Your task to perform on an android device: toggle wifi Image 0: 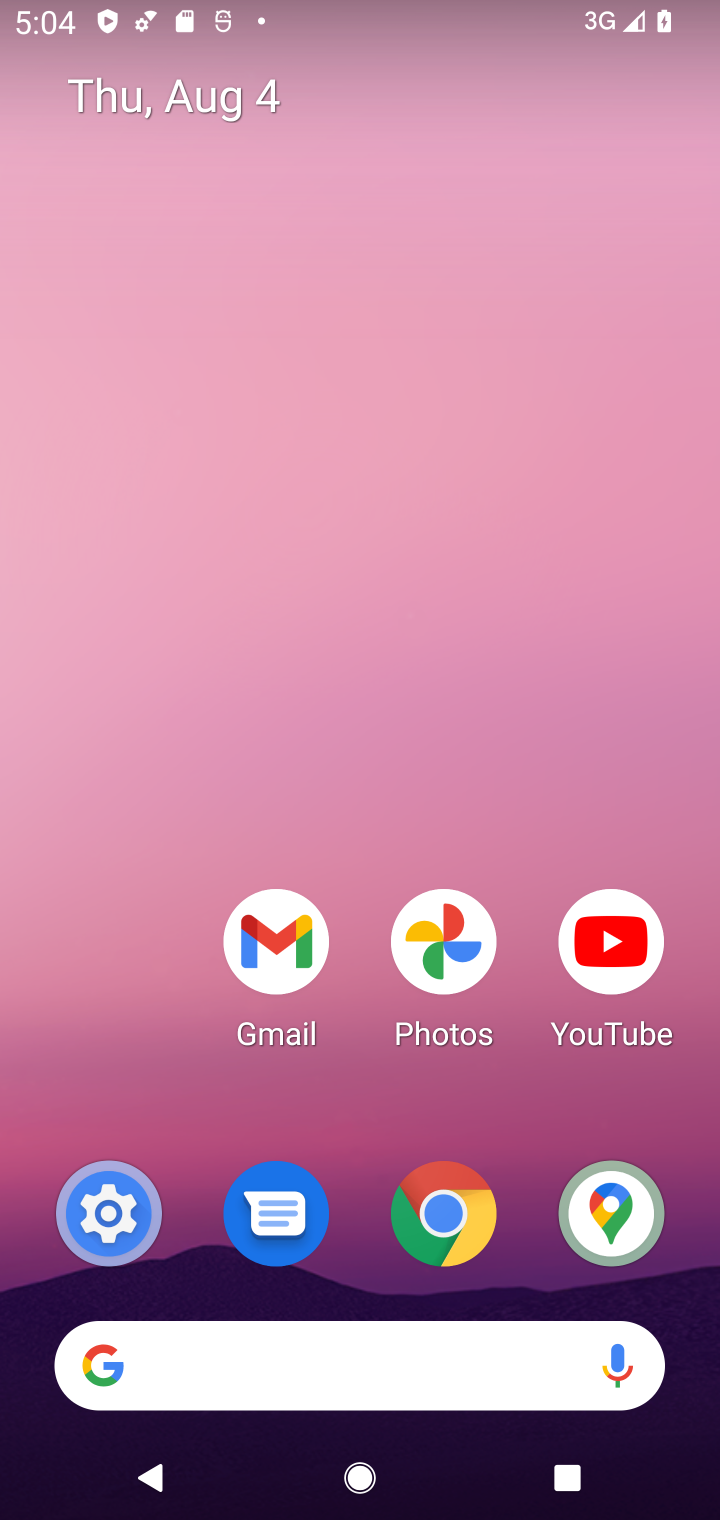
Step 0: press home button
Your task to perform on an android device: toggle wifi Image 1: 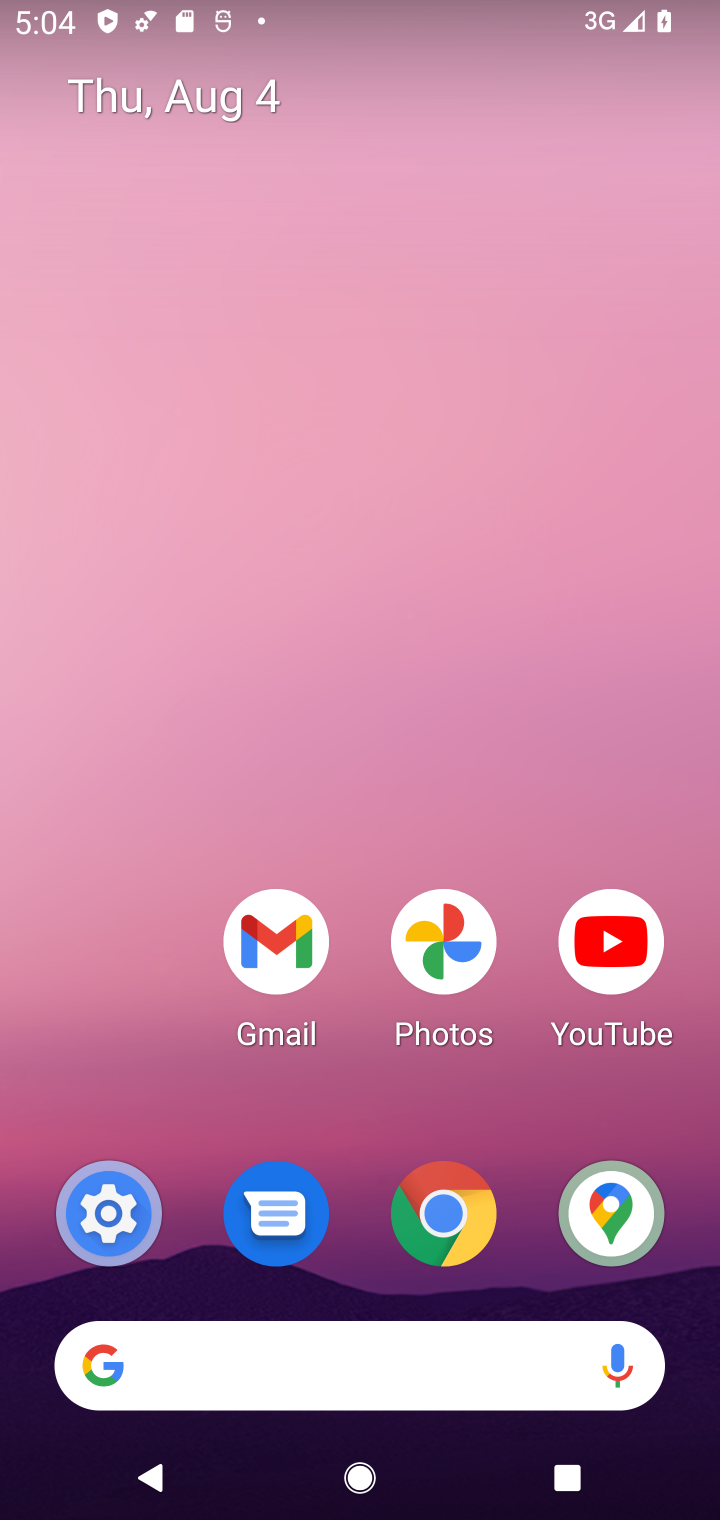
Step 1: drag from (160, 1063) to (147, 400)
Your task to perform on an android device: toggle wifi Image 2: 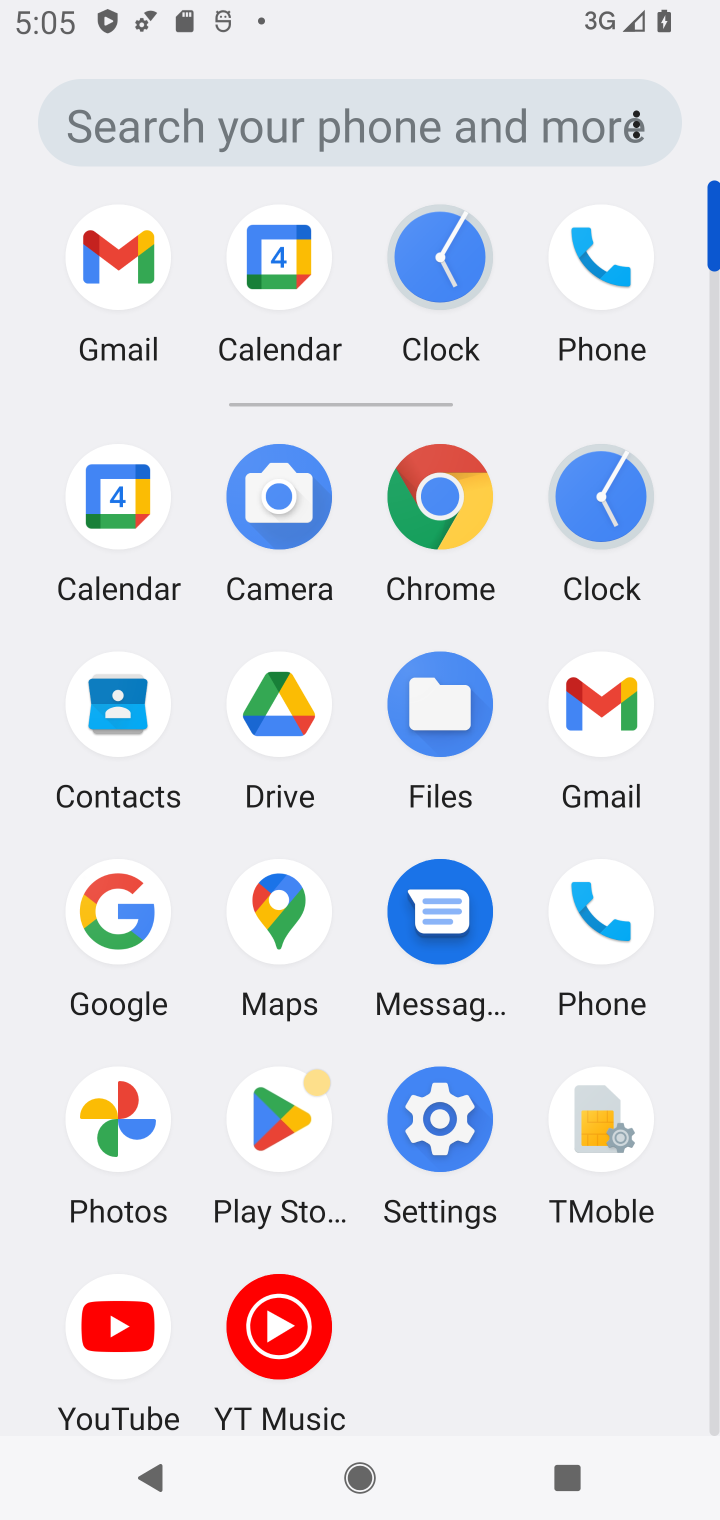
Step 2: click (476, 1128)
Your task to perform on an android device: toggle wifi Image 3: 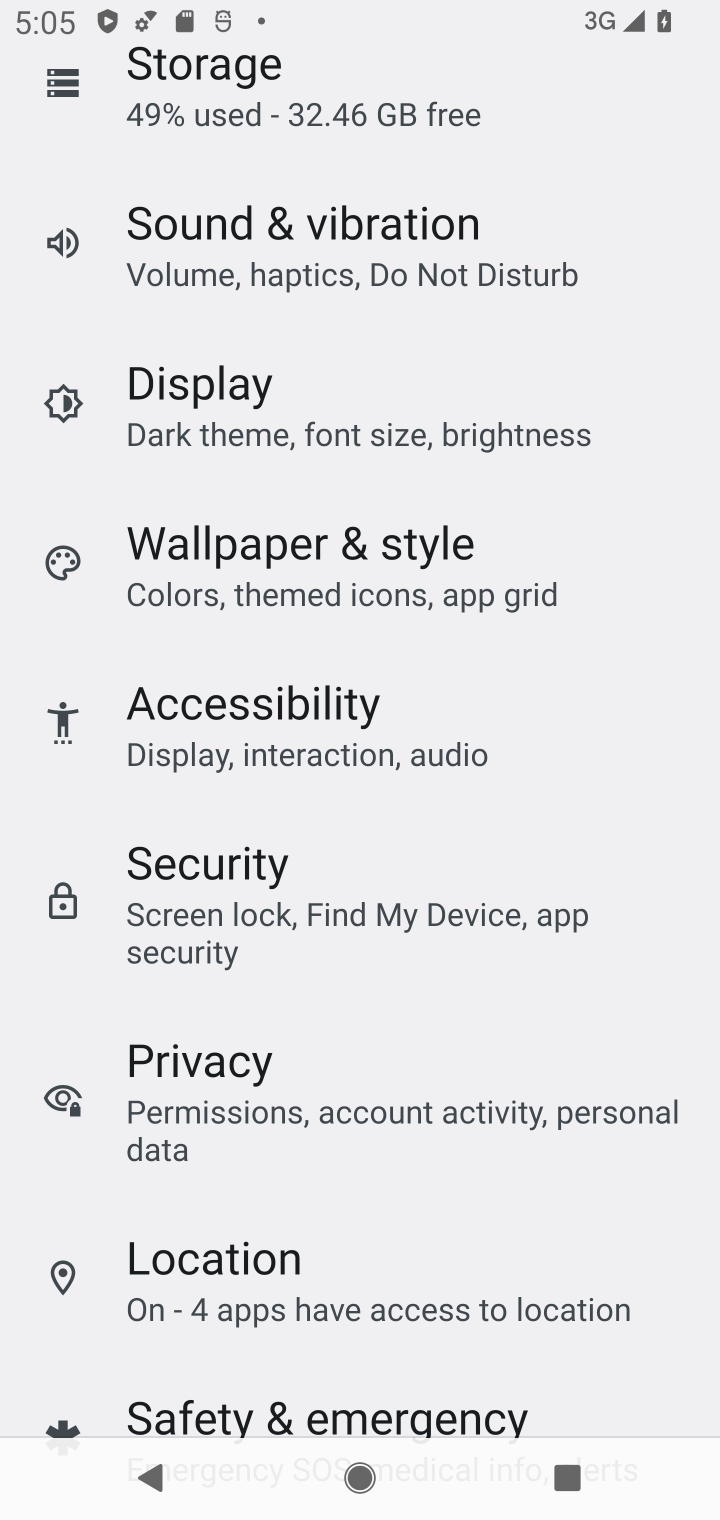
Step 3: drag from (632, 625) to (640, 886)
Your task to perform on an android device: toggle wifi Image 4: 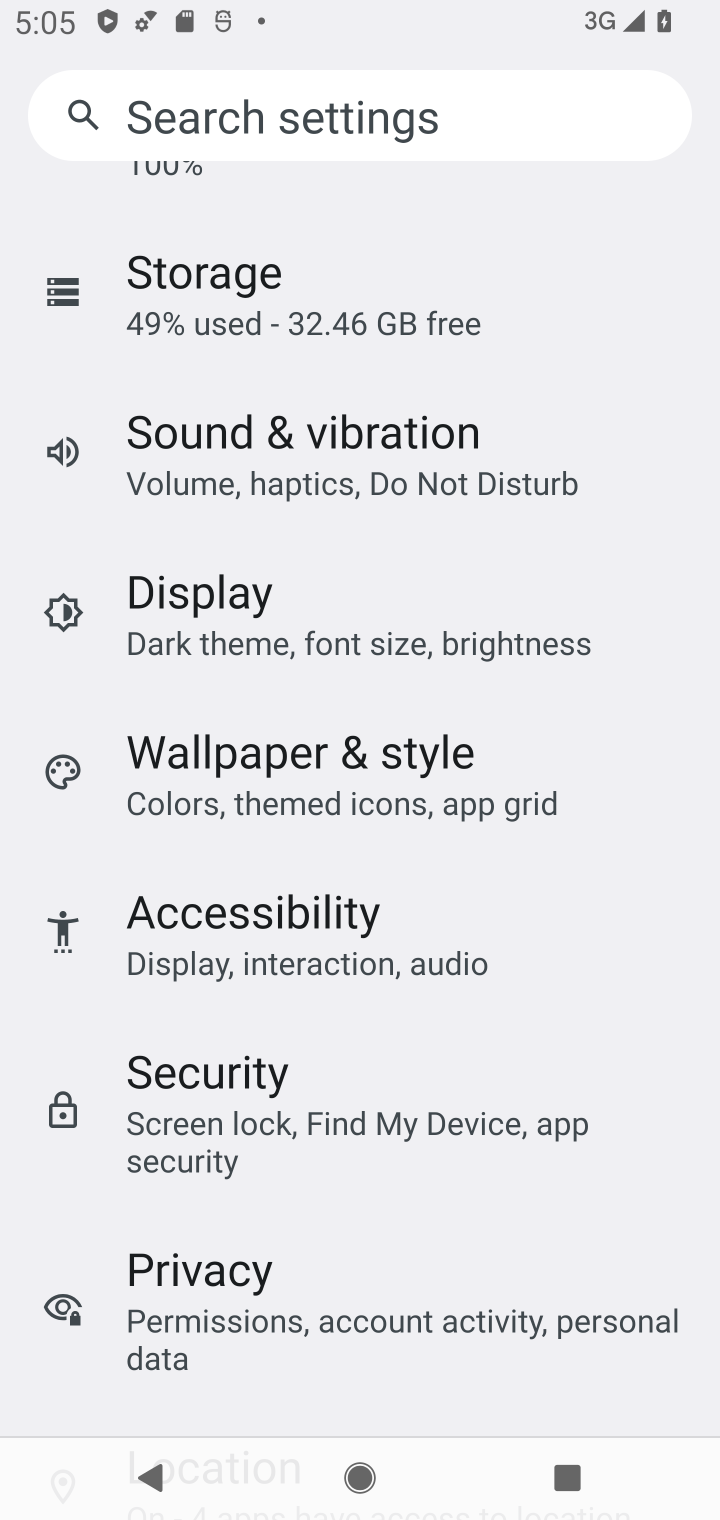
Step 4: drag from (642, 526) to (670, 886)
Your task to perform on an android device: toggle wifi Image 5: 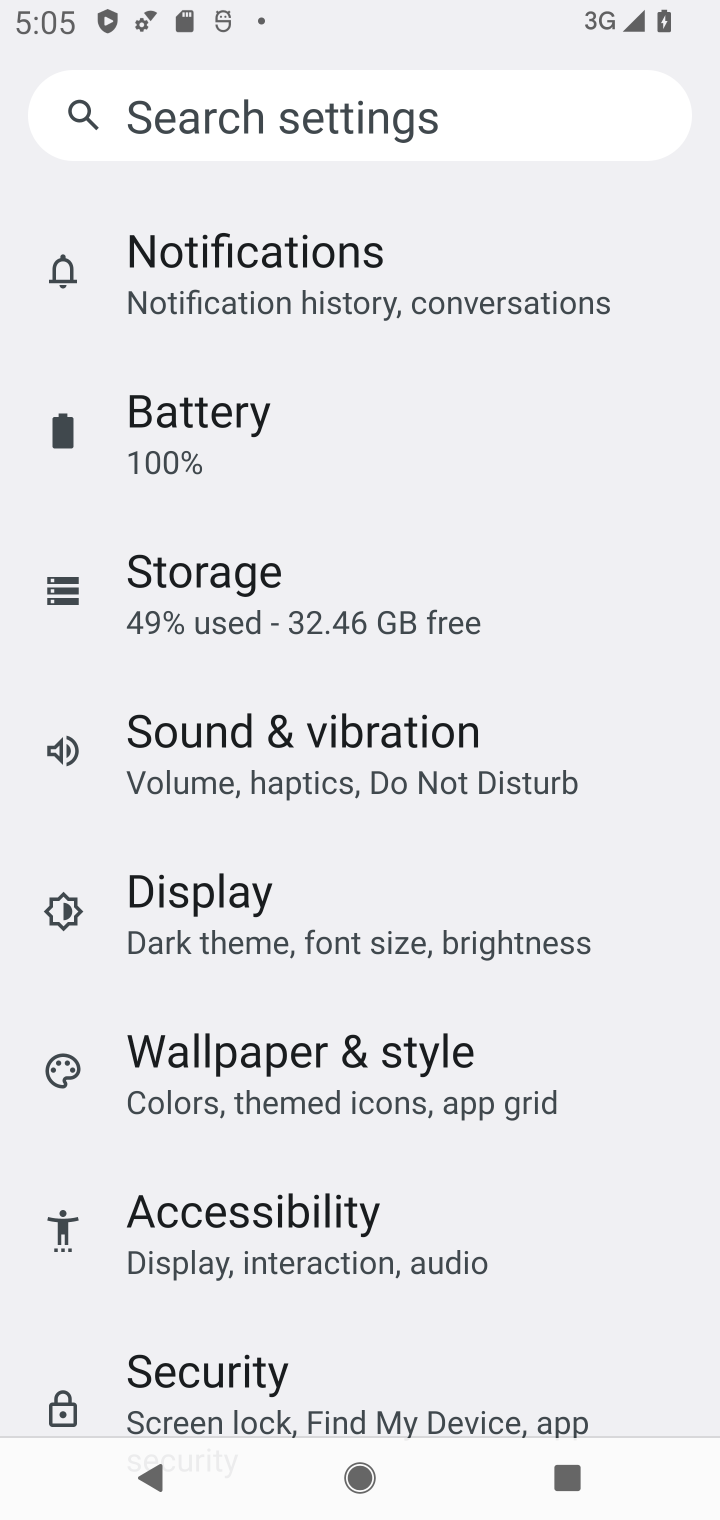
Step 5: drag from (572, 396) to (632, 889)
Your task to perform on an android device: toggle wifi Image 6: 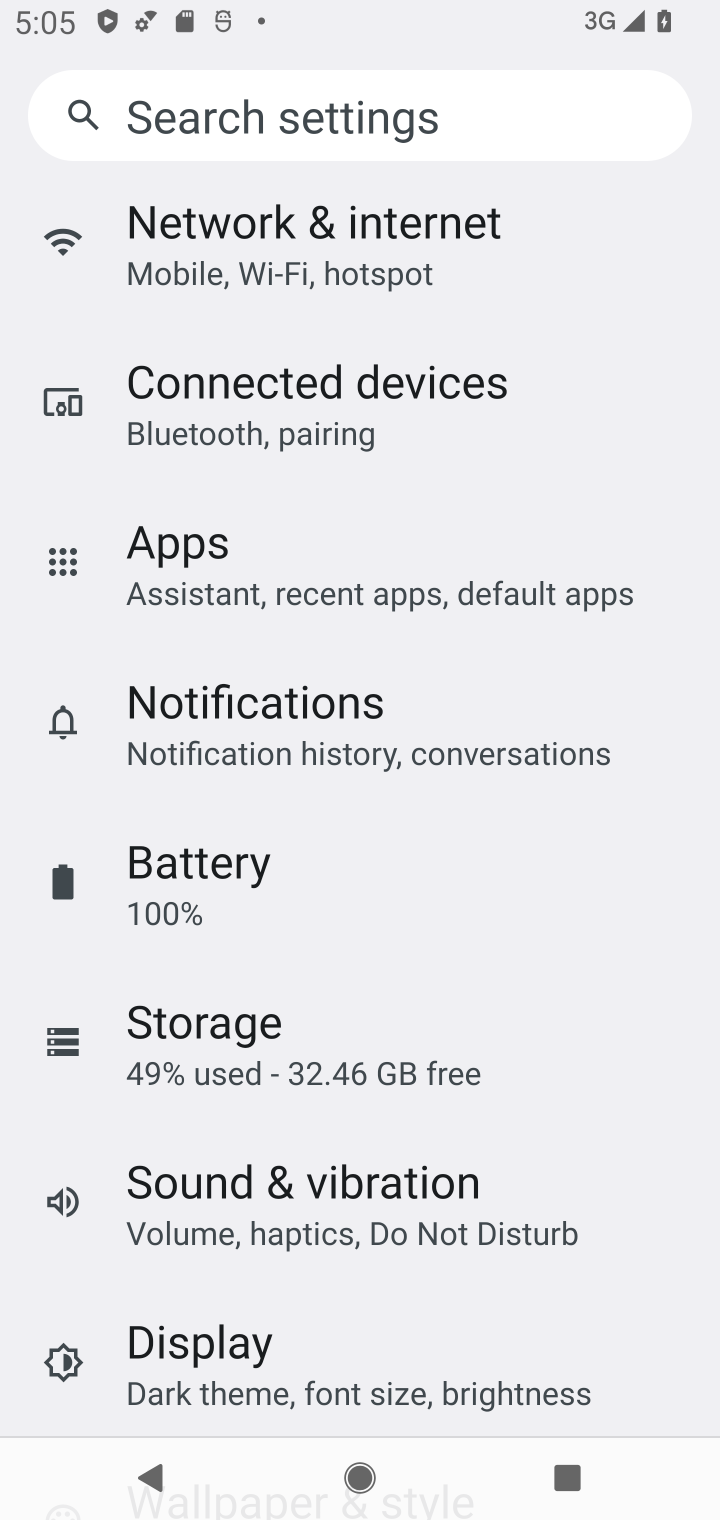
Step 6: drag from (622, 499) to (629, 950)
Your task to perform on an android device: toggle wifi Image 7: 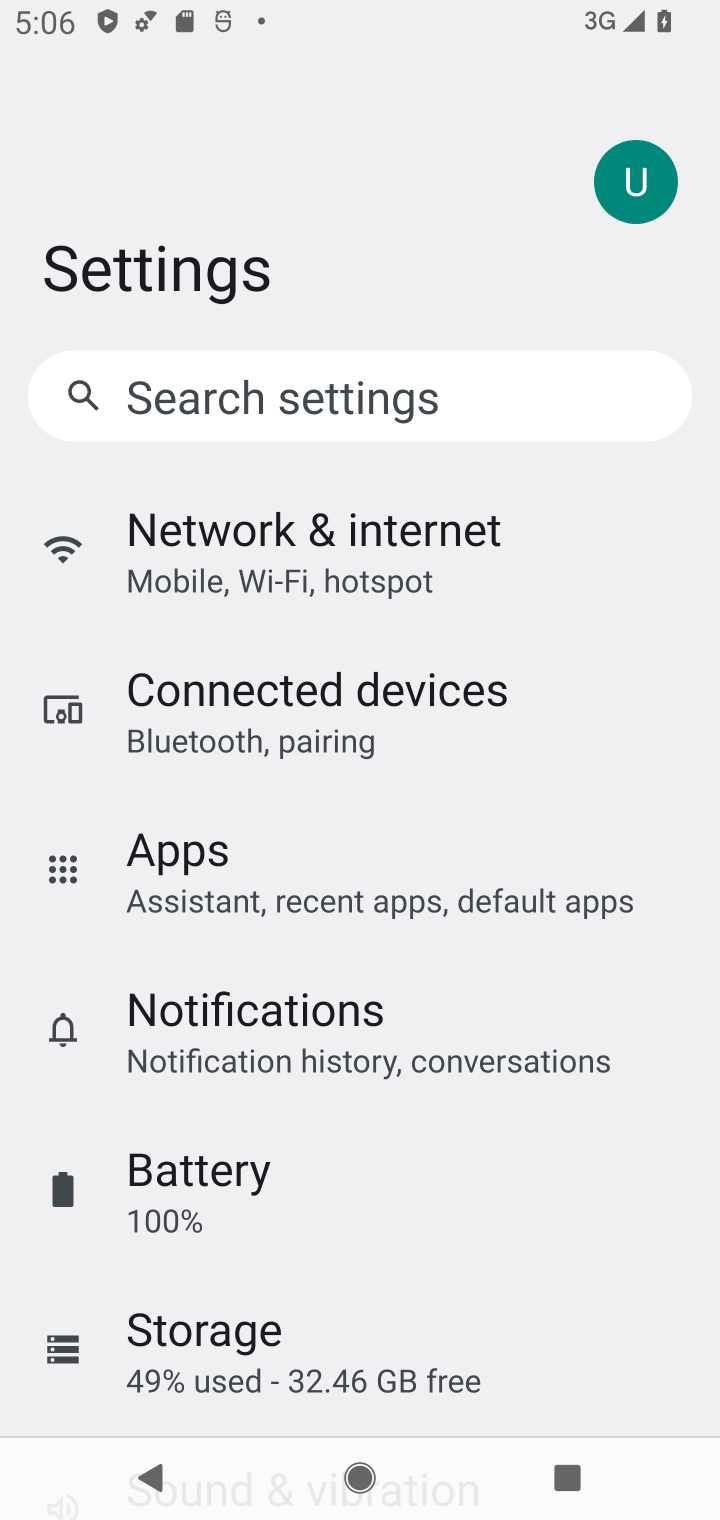
Step 7: click (328, 559)
Your task to perform on an android device: toggle wifi Image 8: 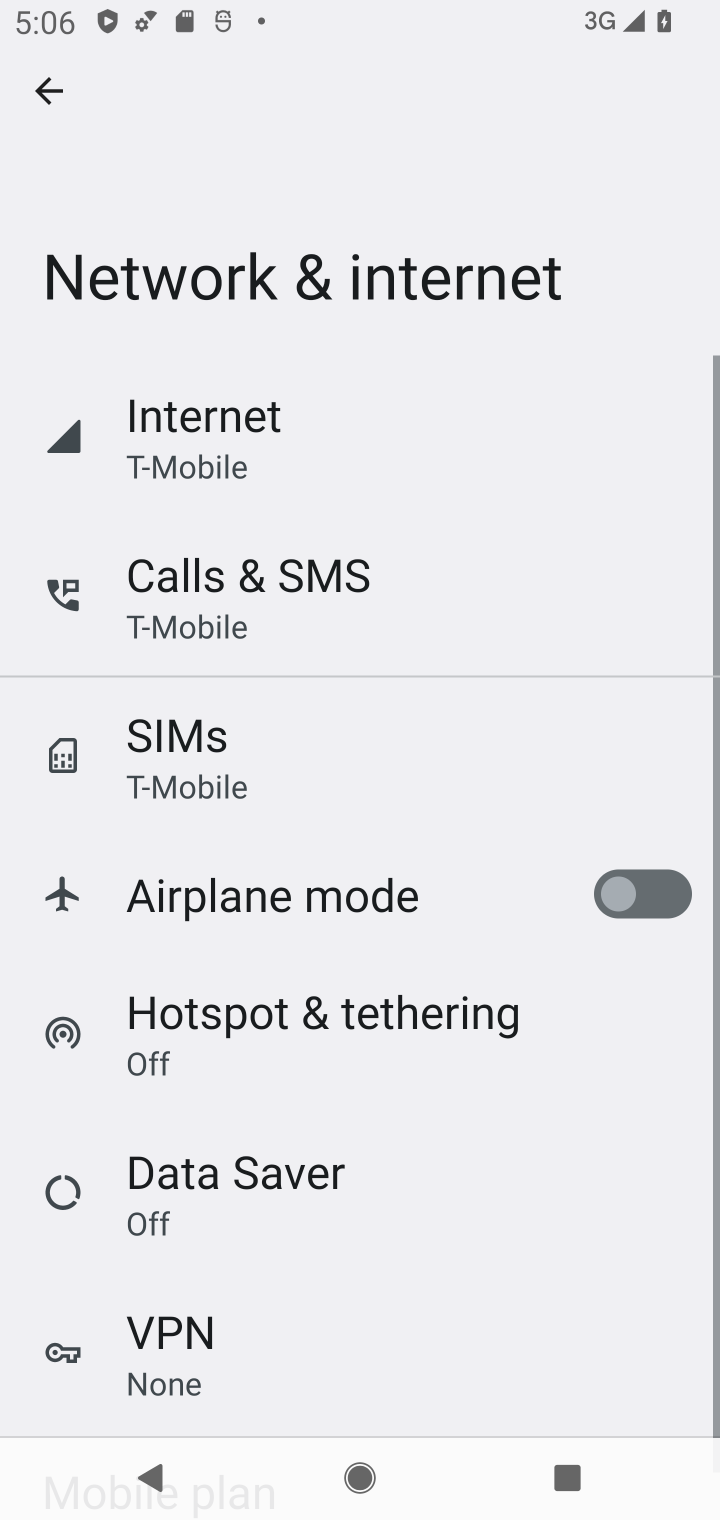
Step 8: click (235, 457)
Your task to perform on an android device: toggle wifi Image 9: 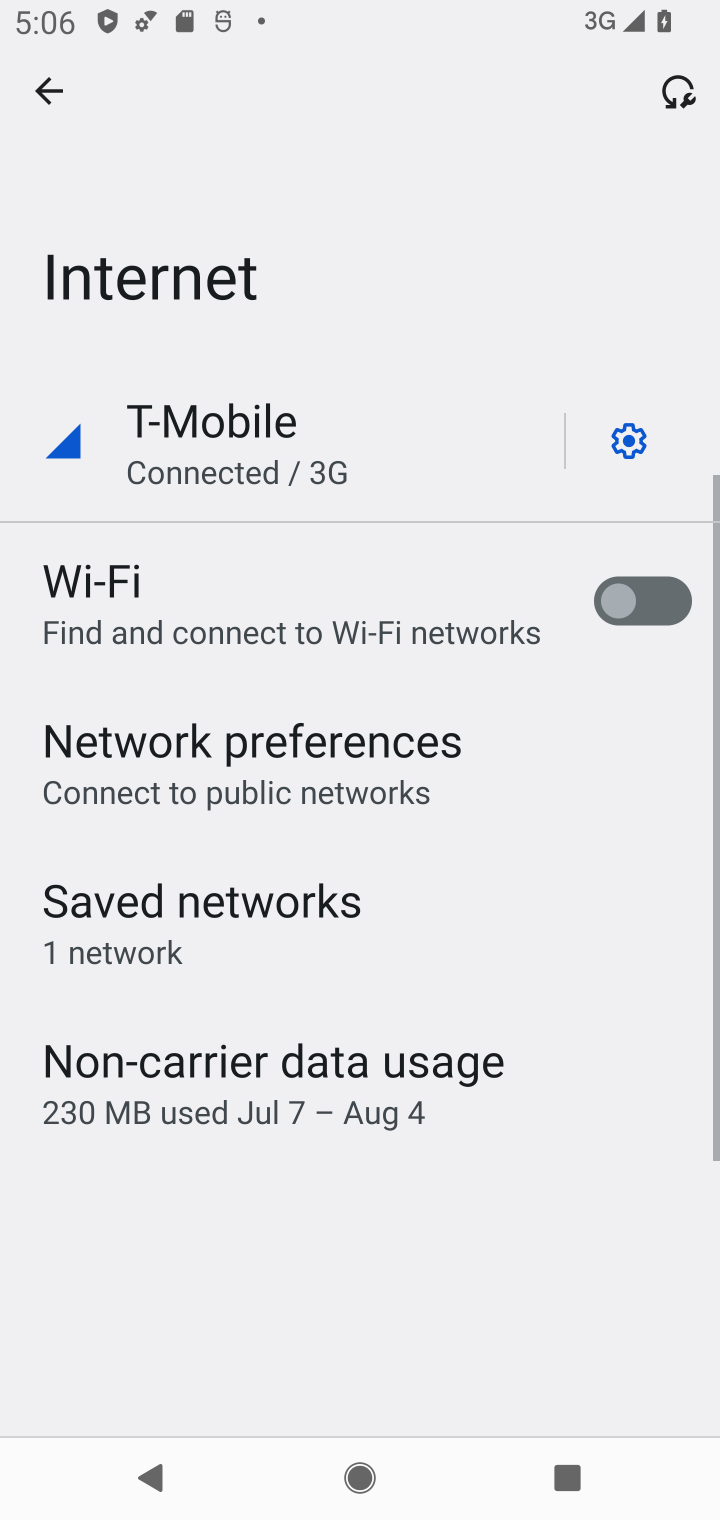
Step 9: click (612, 609)
Your task to perform on an android device: toggle wifi Image 10: 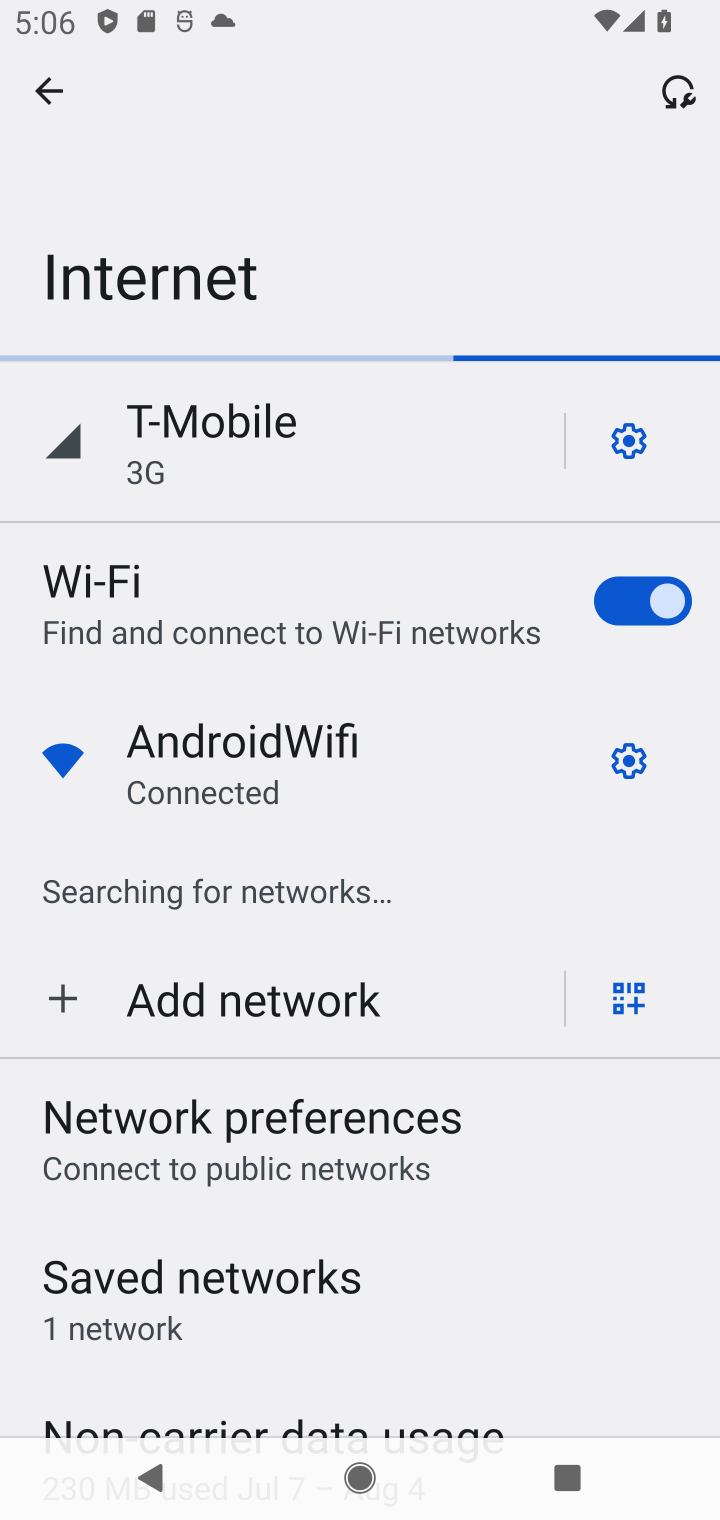
Step 10: task complete